Your task to perform on an android device: Search for the best selling books on Target. Image 0: 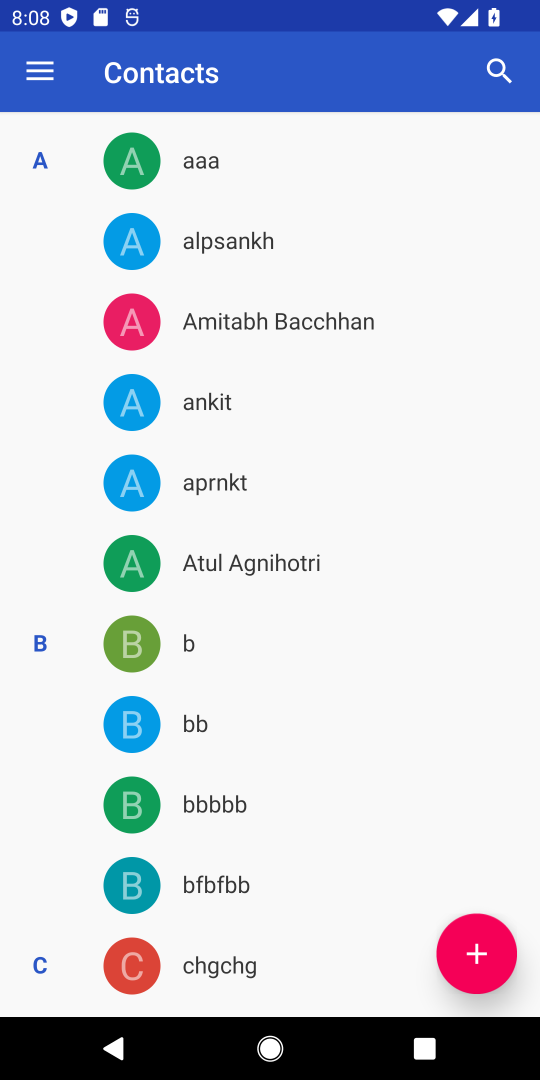
Step 0: press home button
Your task to perform on an android device: Search for the best selling books on Target. Image 1: 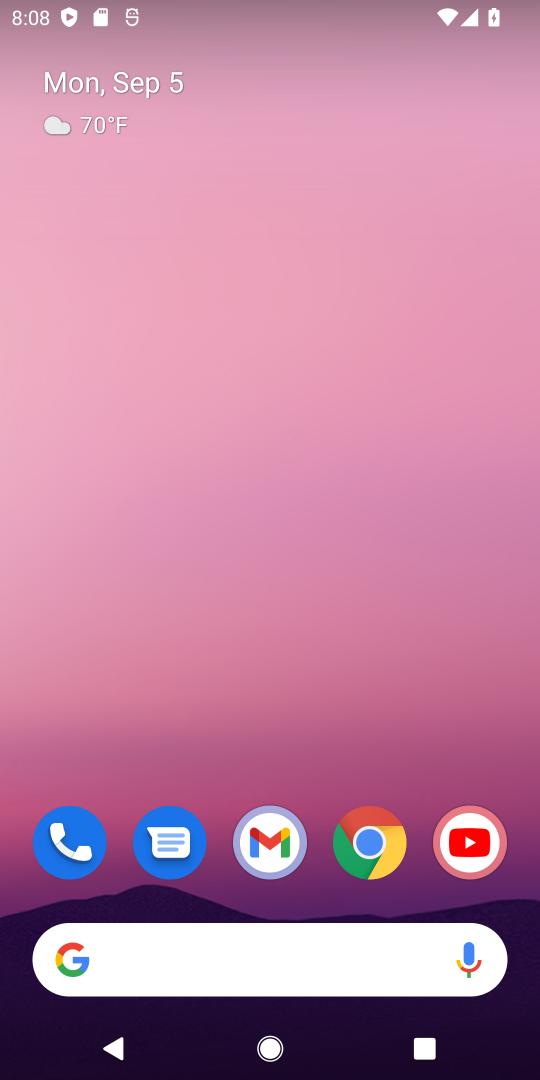
Step 1: click (369, 843)
Your task to perform on an android device: Search for the best selling books on Target. Image 2: 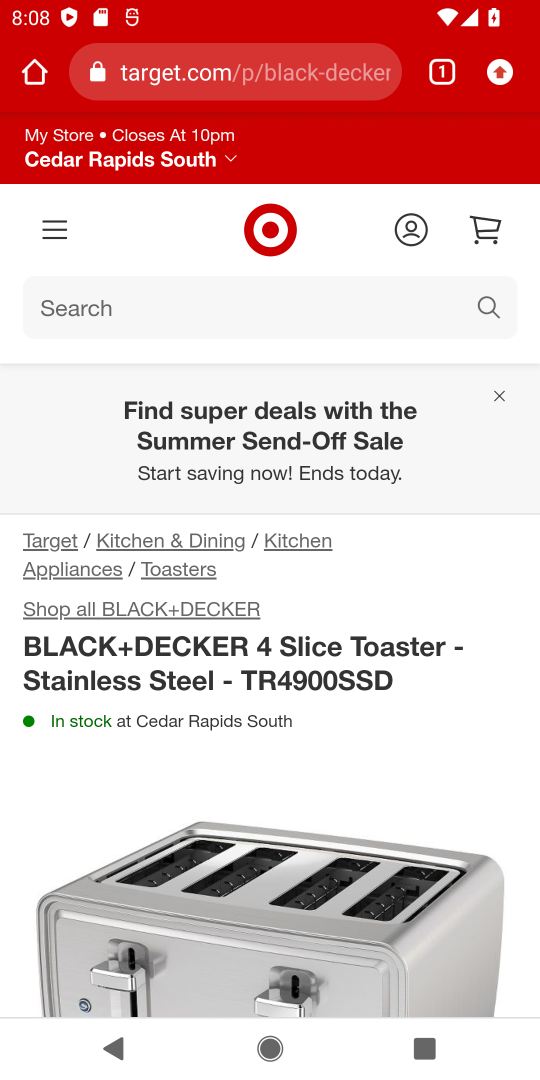
Step 2: click (349, 301)
Your task to perform on an android device: Search for the best selling books on Target. Image 3: 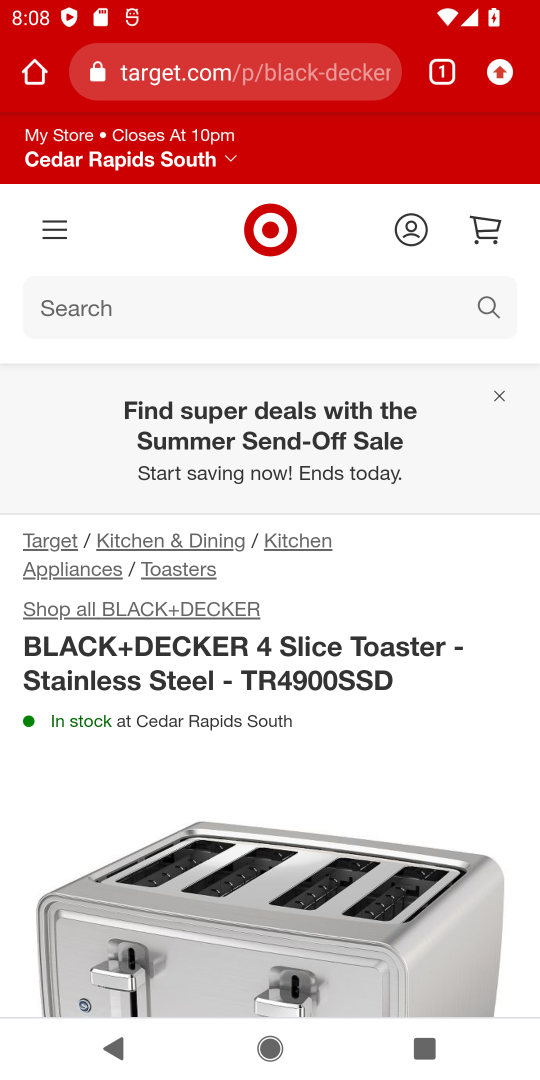
Step 3: type "best selling books"
Your task to perform on an android device: Search for the best selling books on Target. Image 4: 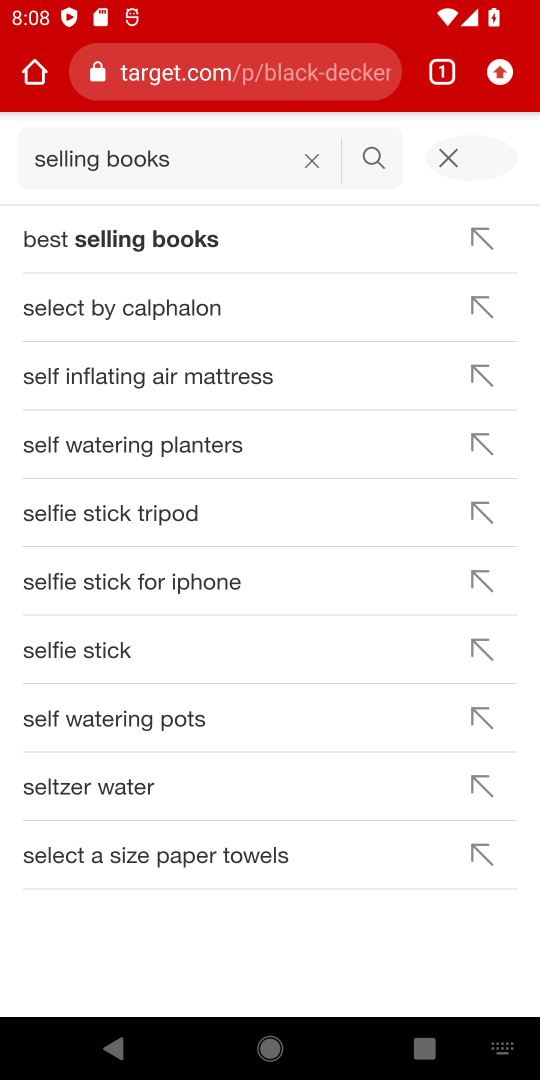
Step 4: click (364, 159)
Your task to perform on an android device: Search for the best selling books on Target. Image 5: 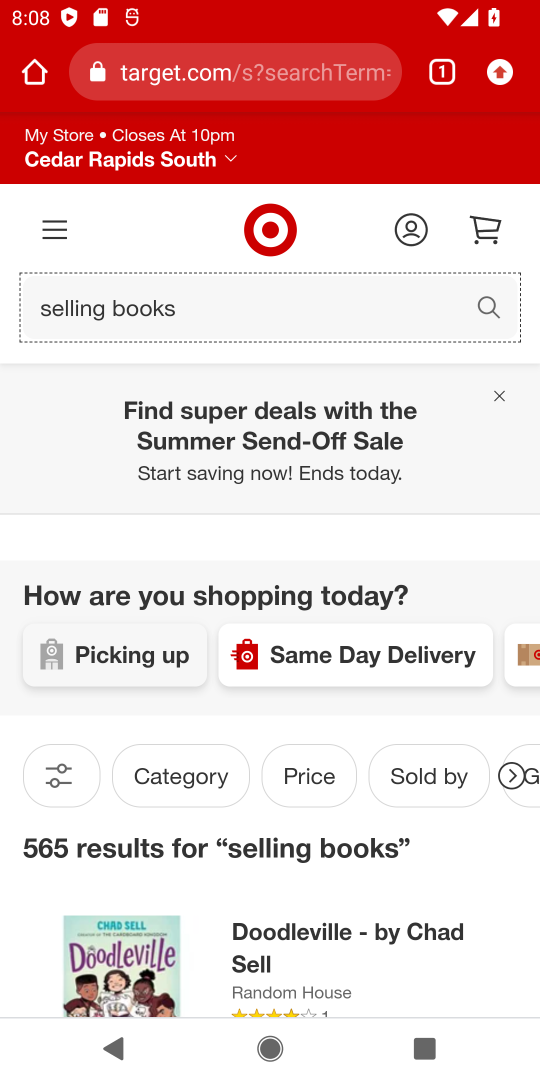
Step 5: task complete